Your task to perform on an android device: Open calendar and show me the fourth week of next month Image 0: 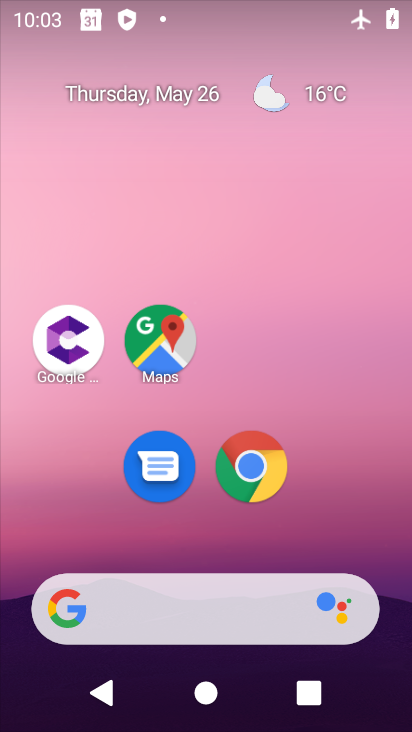
Step 0: drag from (327, 501) to (177, 109)
Your task to perform on an android device: Open calendar and show me the fourth week of next month Image 1: 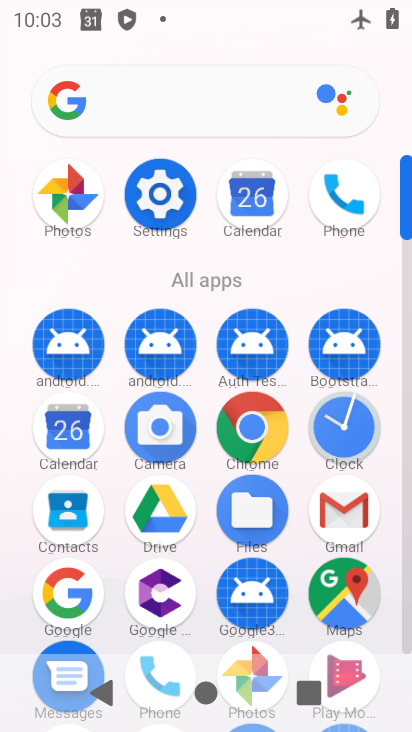
Step 1: click (67, 418)
Your task to perform on an android device: Open calendar and show me the fourth week of next month Image 2: 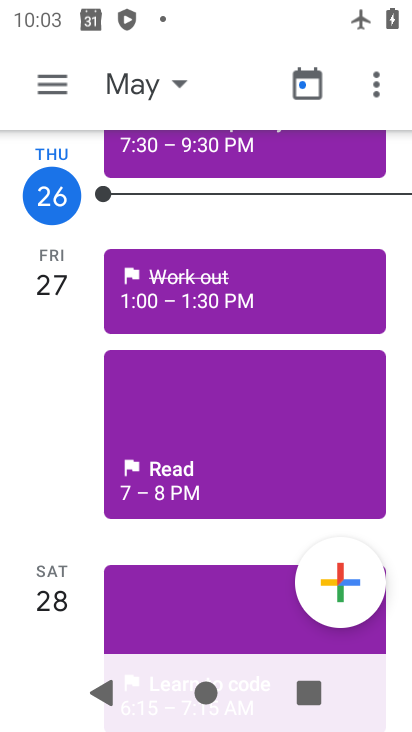
Step 2: click (50, 80)
Your task to perform on an android device: Open calendar and show me the fourth week of next month Image 3: 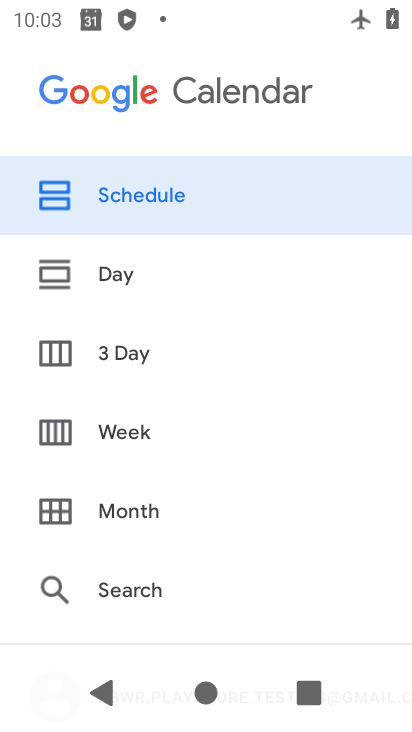
Step 3: click (115, 419)
Your task to perform on an android device: Open calendar and show me the fourth week of next month Image 4: 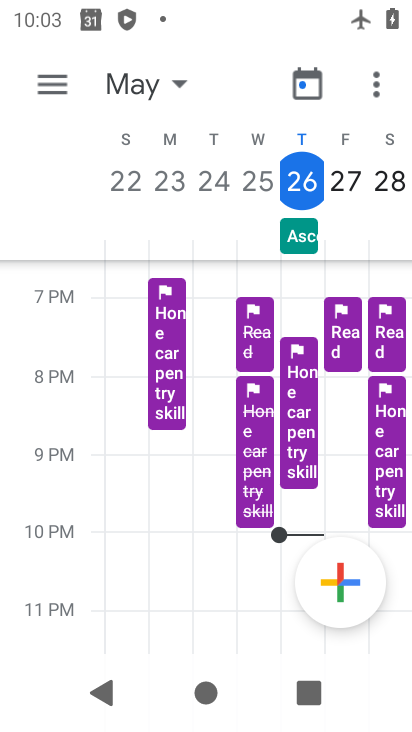
Step 4: click (172, 72)
Your task to perform on an android device: Open calendar and show me the fourth week of next month Image 5: 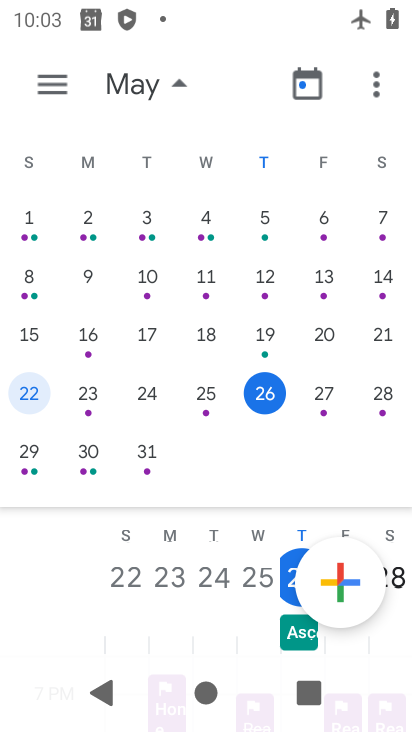
Step 5: drag from (364, 267) to (51, 228)
Your task to perform on an android device: Open calendar and show me the fourth week of next month Image 6: 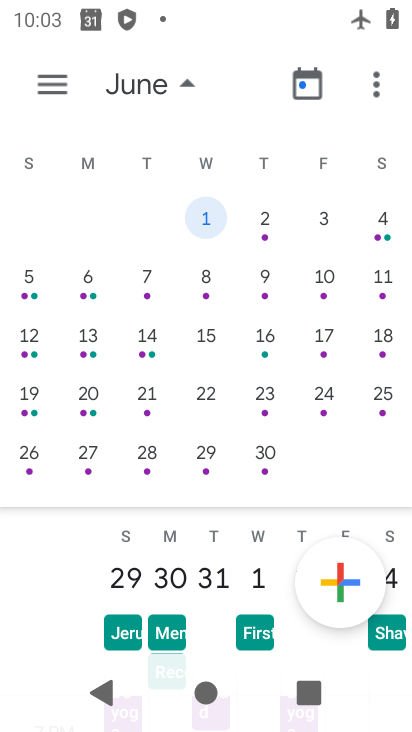
Step 6: click (149, 390)
Your task to perform on an android device: Open calendar and show me the fourth week of next month Image 7: 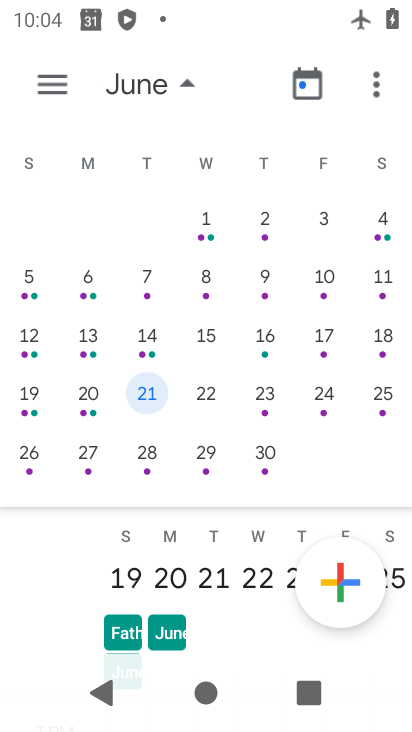
Step 7: task complete